Your task to perform on an android device: open app "Messenger Lite" (install if not already installed) and enter user name: "cataclysmic@outlook.com" and password: "victoriously" Image 0: 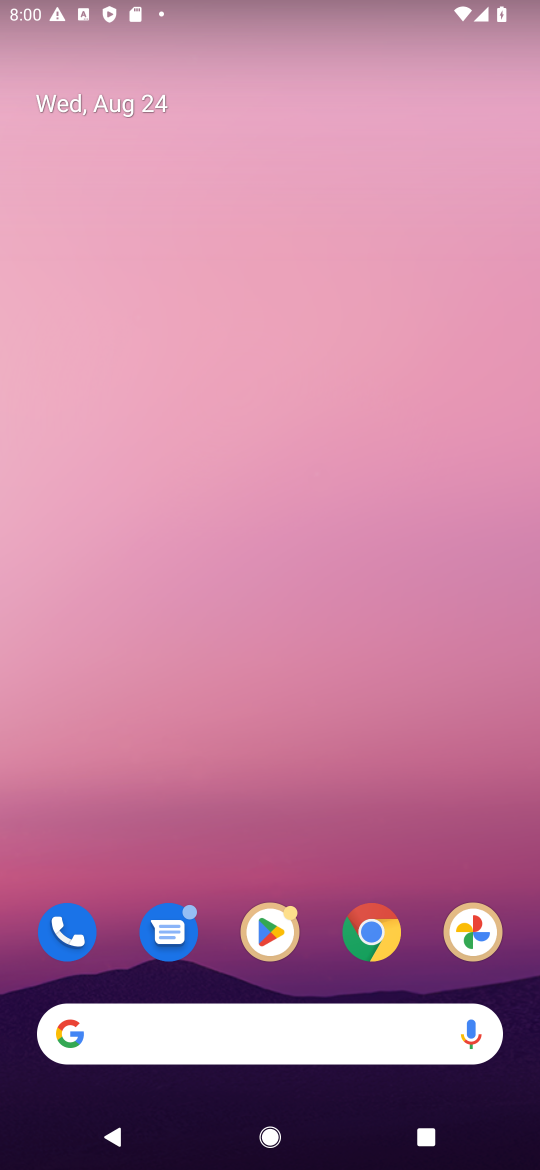
Step 0: drag from (223, 977) to (295, 4)
Your task to perform on an android device: open app "Messenger Lite" (install if not already installed) and enter user name: "cataclysmic@outlook.com" and password: "victoriously" Image 1: 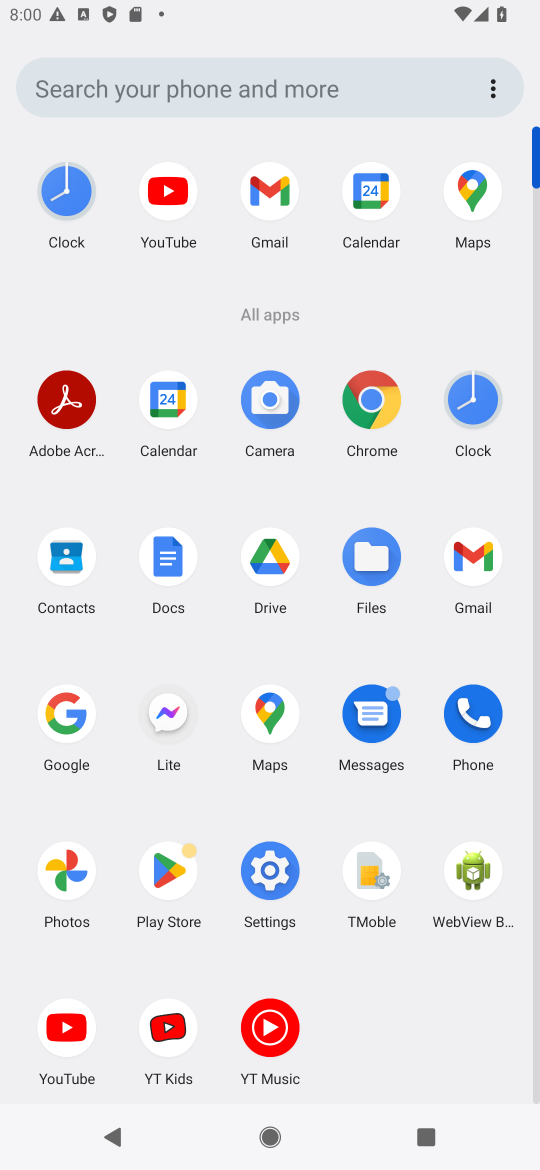
Step 1: click (161, 876)
Your task to perform on an android device: open app "Messenger Lite" (install if not already installed) and enter user name: "cataclysmic@outlook.com" and password: "victoriously" Image 2: 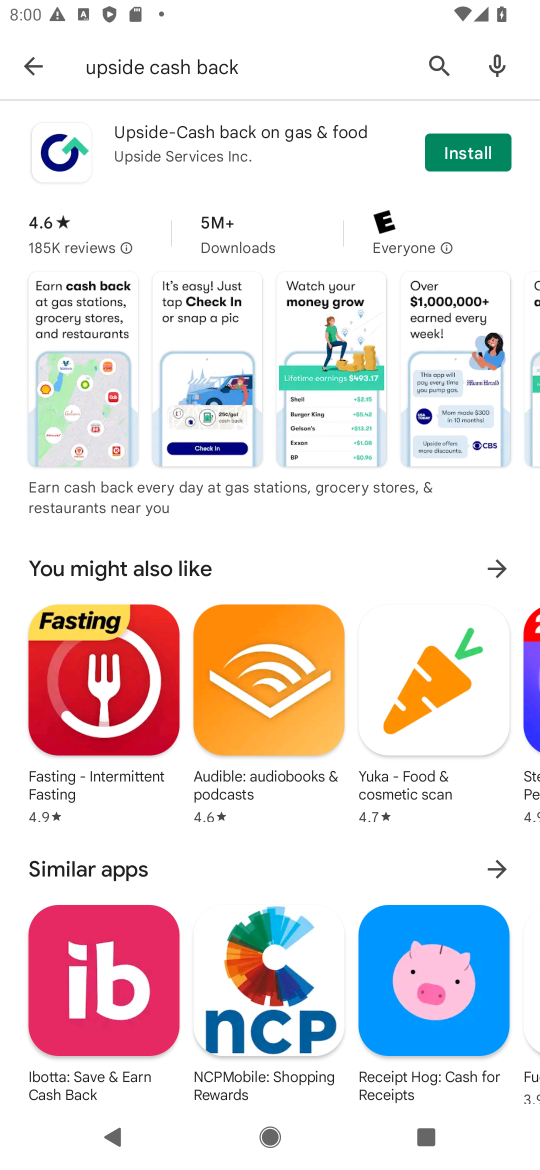
Step 2: click (205, 62)
Your task to perform on an android device: open app "Messenger Lite" (install if not already installed) and enter user name: "cataclysmic@outlook.com" and password: "victoriously" Image 3: 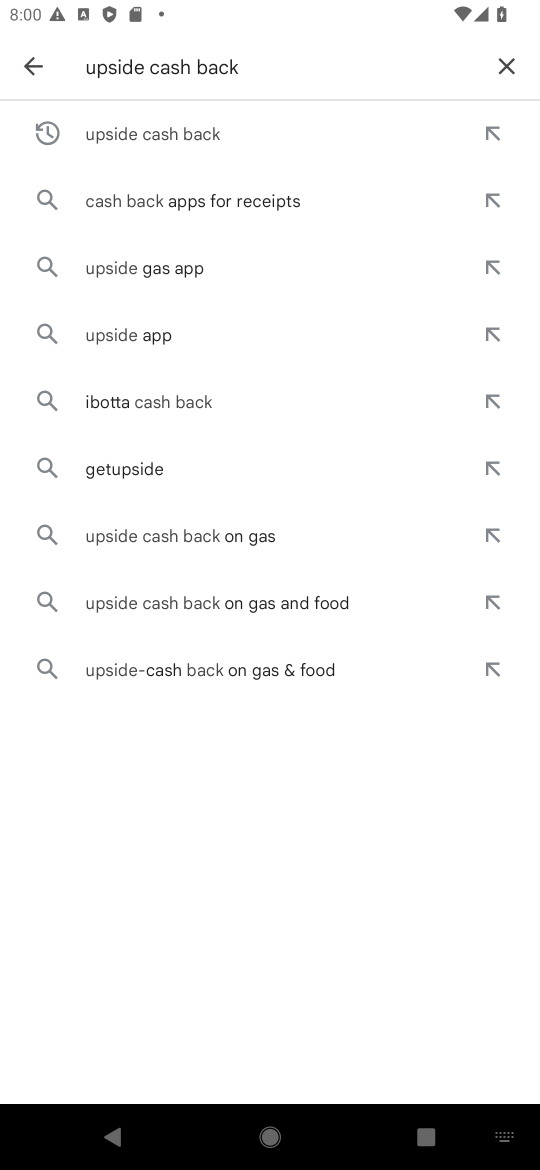
Step 3: click (500, 61)
Your task to perform on an android device: open app "Messenger Lite" (install if not already installed) and enter user name: "cataclysmic@outlook.com" and password: "victoriously" Image 4: 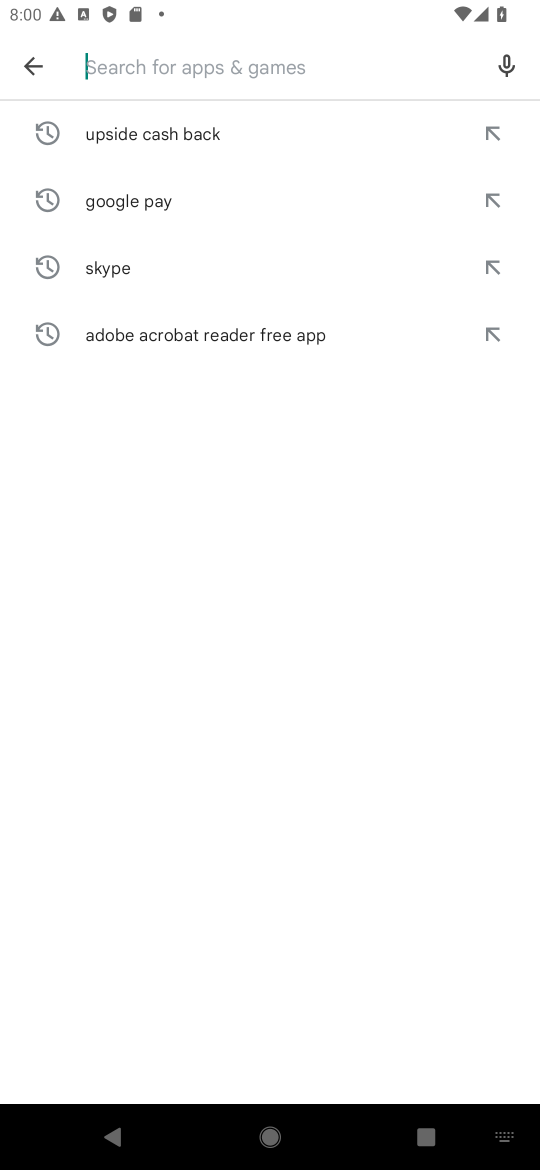
Step 4: type "messenger lite"
Your task to perform on an android device: open app "Messenger Lite" (install if not already installed) and enter user name: "cataclysmic@outlook.com" and password: "victoriously" Image 5: 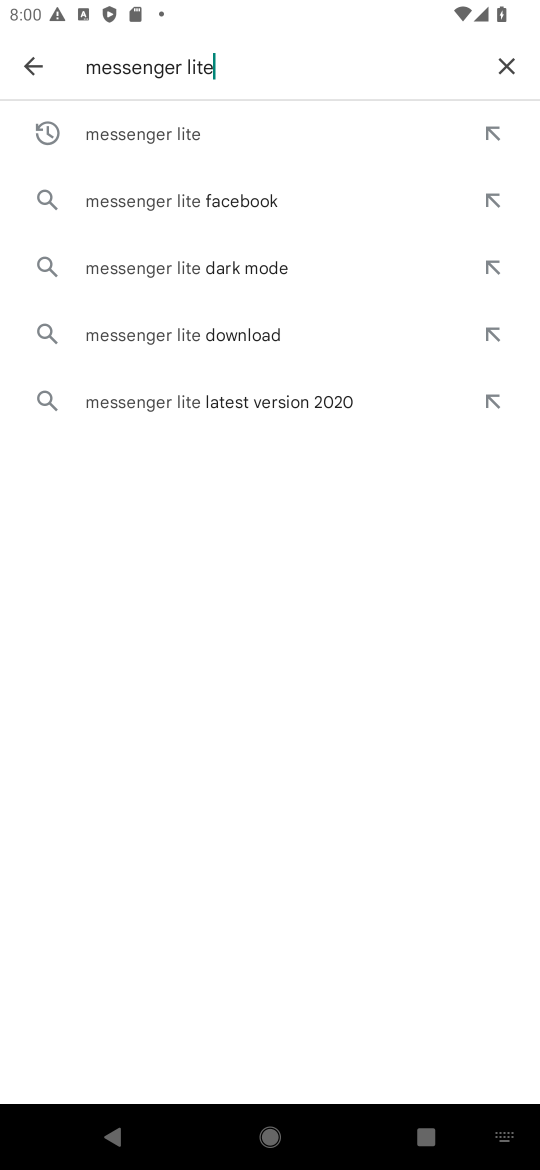
Step 5: click (177, 108)
Your task to perform on an android device: open app "Messenger Lite" (install if not already installed) and enter user name: "cataclysmic@outlook.com" and password: "victoriously" Image 6: 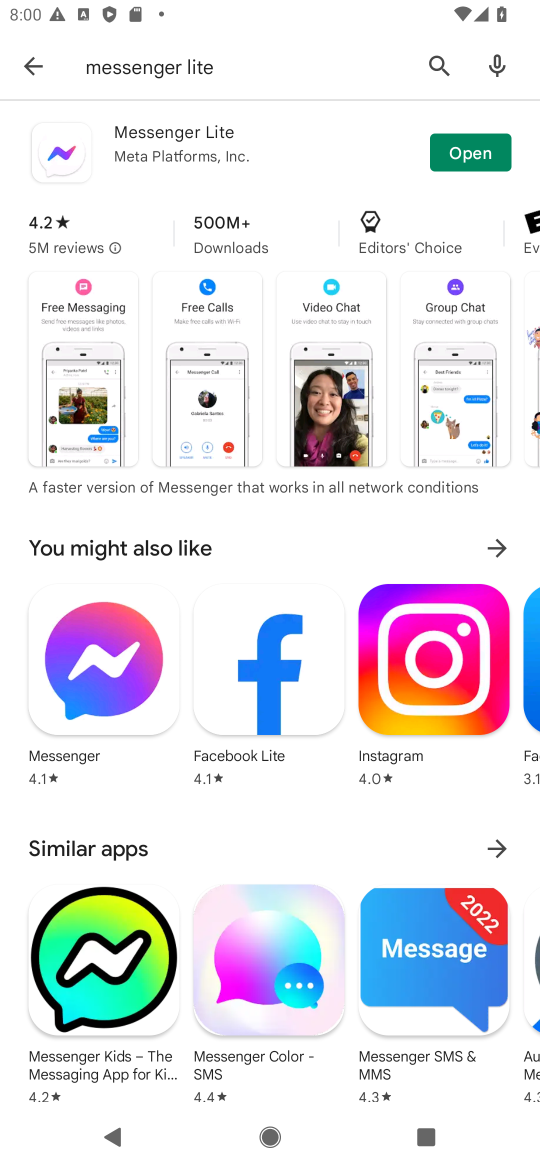
Step 6: click (455, 143)
Your task to perform on an android device: open app "Messenger Lite" (install if not already installed) and enter user name: "cataclysmic@outlook.com" and password: "victoriously" Image 7: 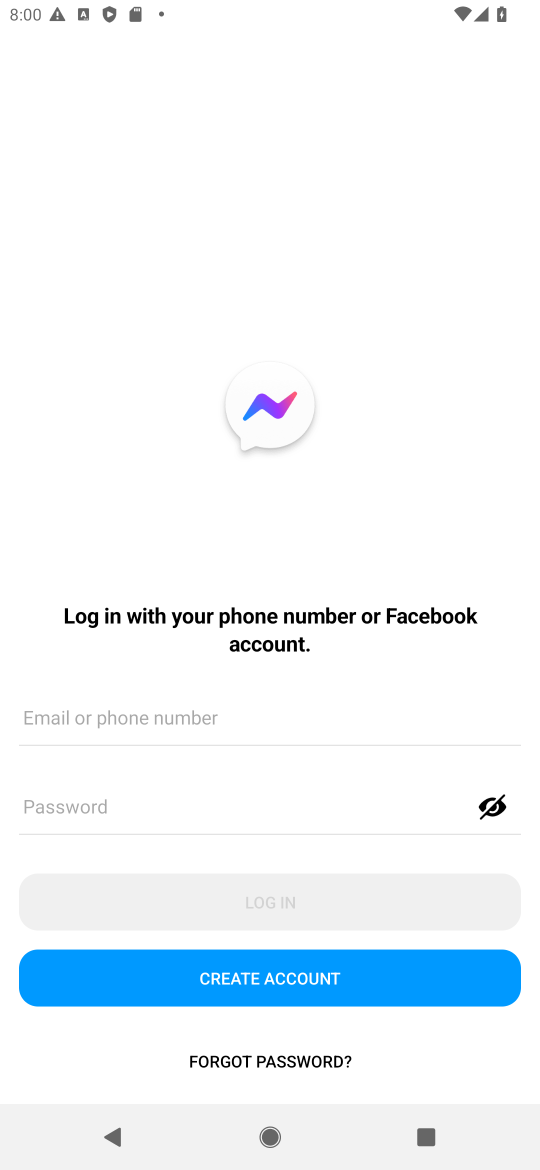
Step 7: click (214, 697)
Your task to perform on an android device: open app "Messenger Lite" (install if not already installed) and enter user name: "cataclysmic@outlook.com" and password: "victoriously" Image 8: 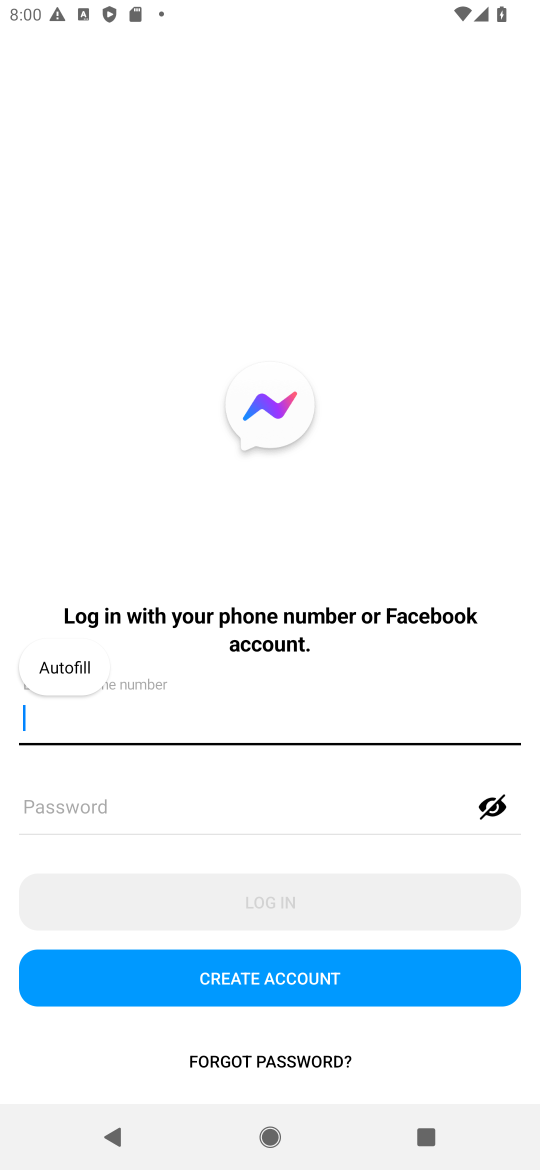
Step 8: type "cataclysmic@outlook.com"
Your task to perform on an android device: open app "Messenger Lite" (install if not already installed) and enter user name: "cataclysmic@outlook.com" and password: "victoriously" Image 9: 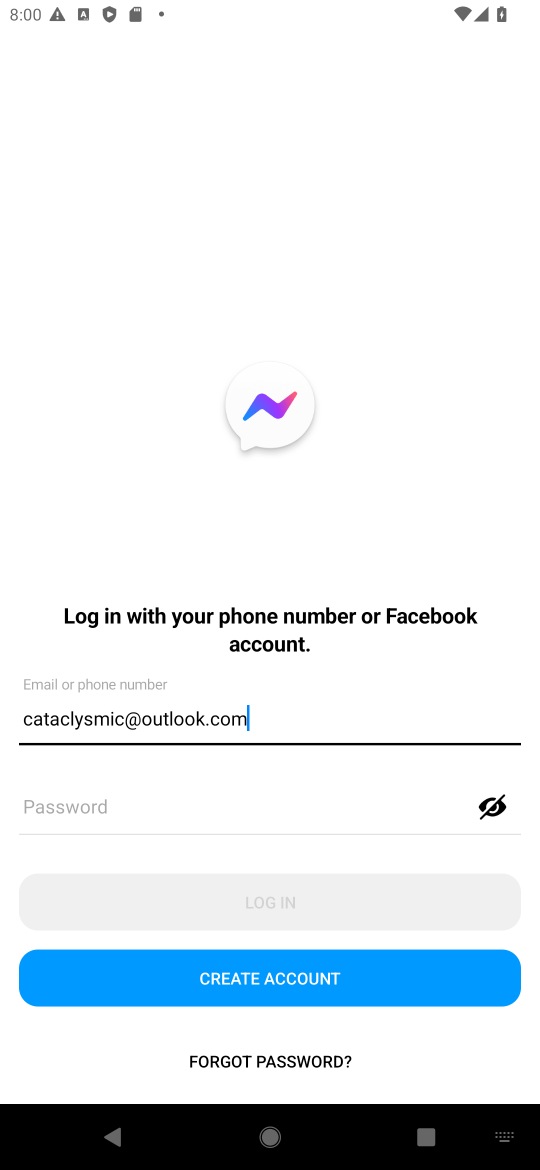
Step 9: click (275, 807)
Your task to perform on an android device: open app "Messenger Lite" (install if not already installed) and enter user name: "cataclysmic@outlook.com" and password: "victoriously" Image 10: 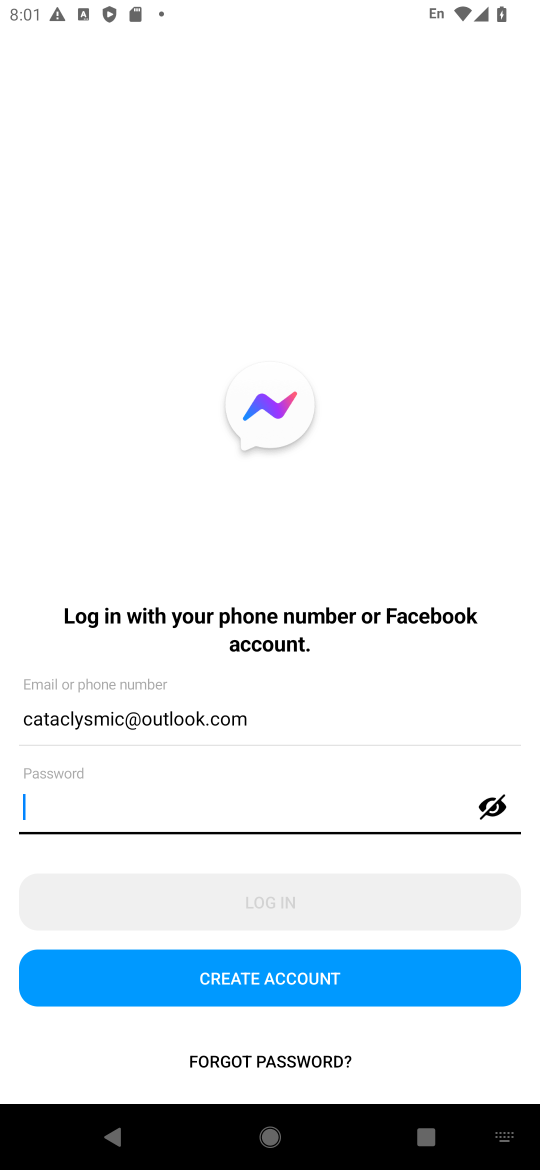
Step 10: type "victoriously"
Your task to perform on an android device: open app "Messenger Lite" (install if not already installed) and enter user name: "cataclysmic@outlook.com" and password: "victoriously" Image 11: 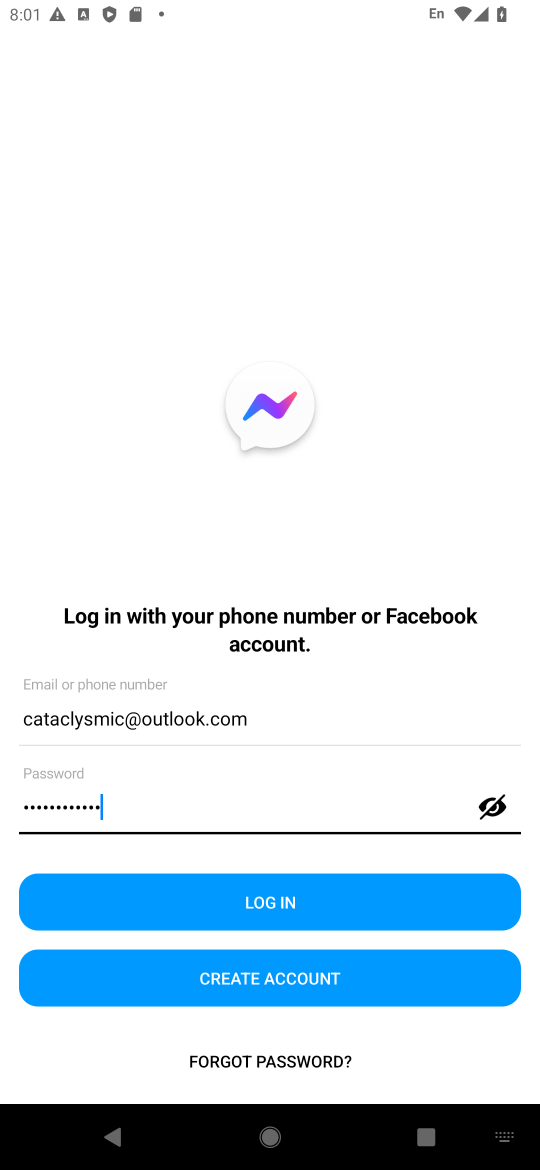
Step 11: click (288, 903)
Your task to perform on an android device: open app "Messenger Lite" (install if not already installed) and enter user name: "cataclysmic@outlook.com" and password: "victoriously" Image 12: 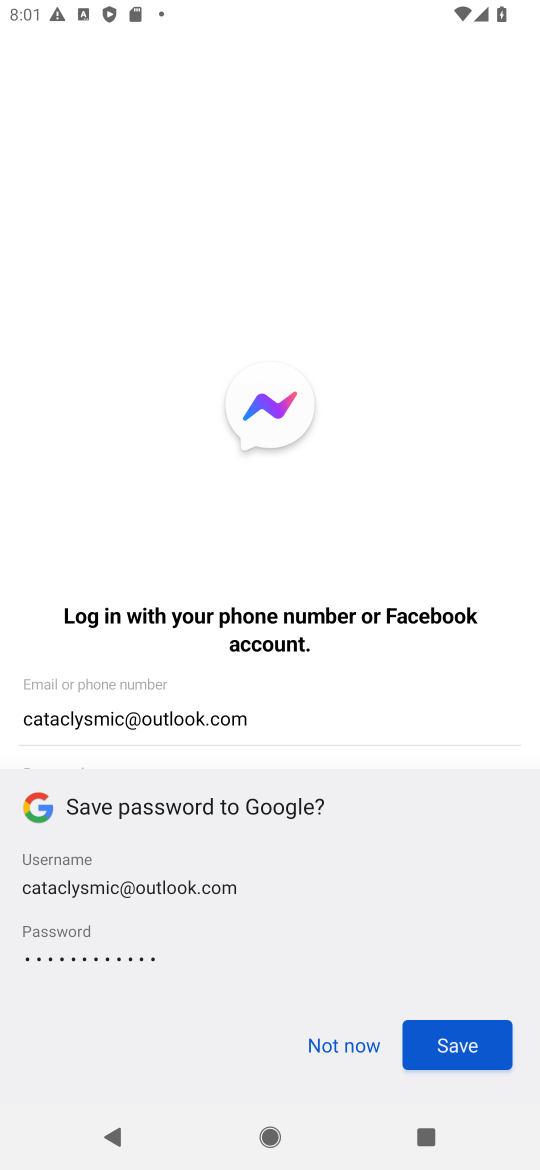
Step 12: click (327, 1043)
Your task to perform on an android device: open app "Messenger Lite" (install if not already installed) and enter user name: "cataclysmic@outlook.com" and password: "victoriously" Image 13: 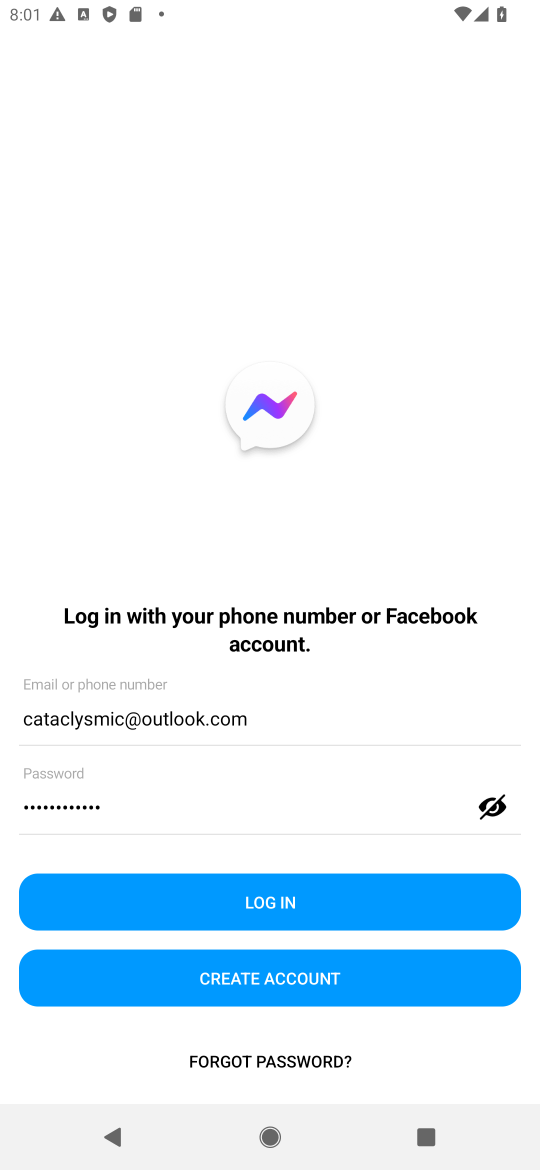
Step 13: task complete